Your task to perform on an android device: Open notification settings Image 0: 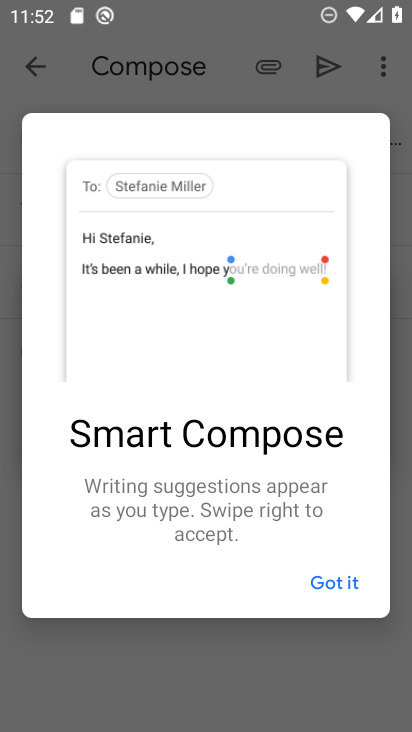
Step 0: press home button
Your task to perform on an android device: Open notification settings Image 1: 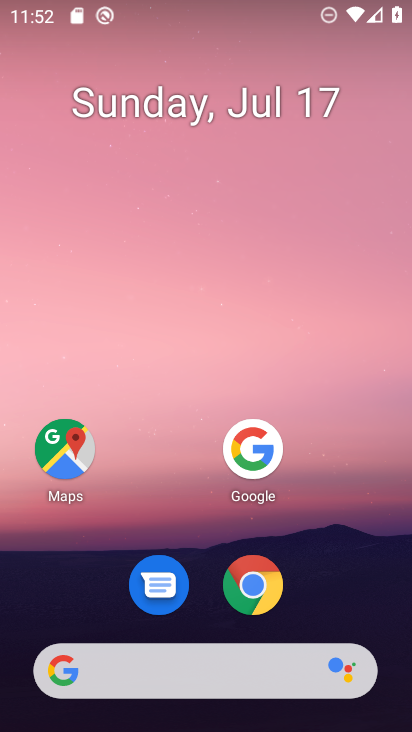
Step 1: drag from (168, 662) to (277, 3)
Your task to perform on an android device: Open notification settings Image 2: 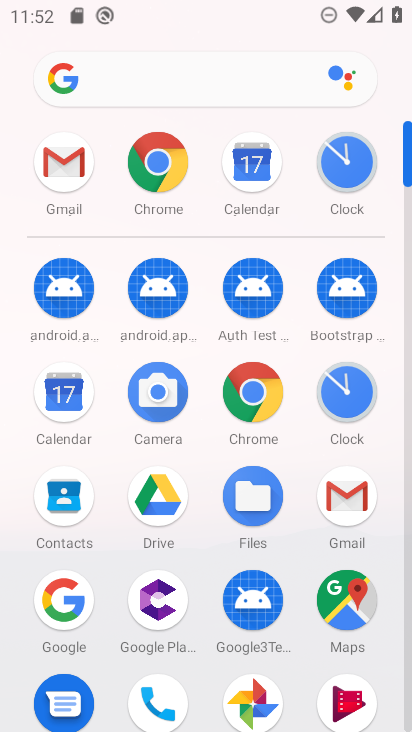
Step 2: drag from (195, 562) to (244, 115)
Your task to perform on an android device: Open notification settings Image 3: 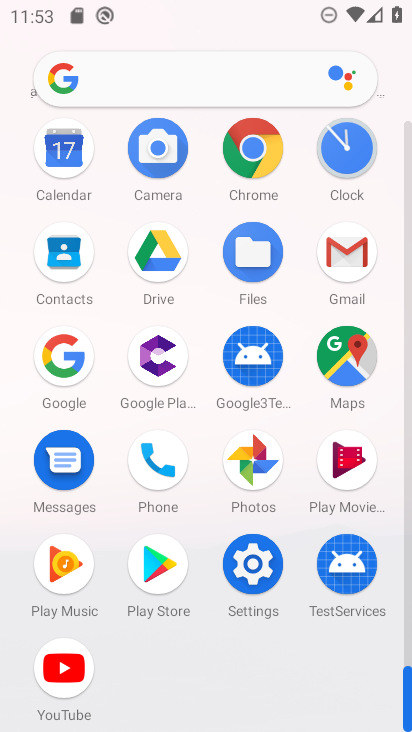
Step 3: click (261, 564)
Your task to perform on an android device: Open notification settings Image 4: 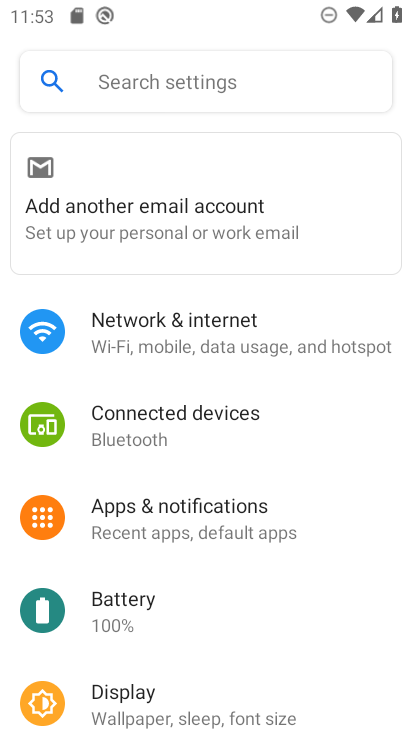
Step 4: click (203, 527)
Your task to perform on an android device: Open notification settings Image 5: 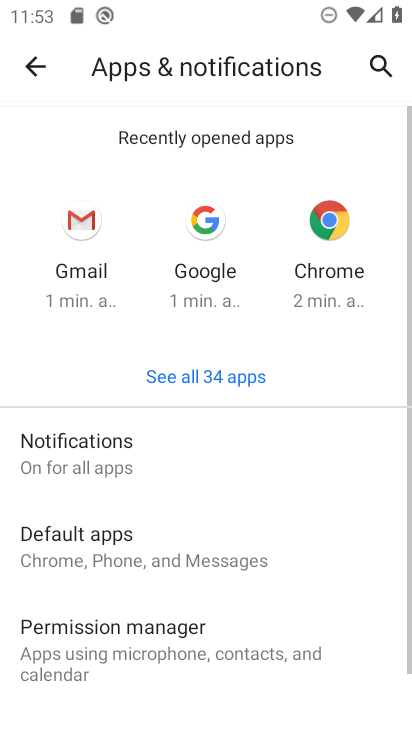
Step 5: click (86, 446)
Your task to perform on an android device: Open notification settings Image 6: 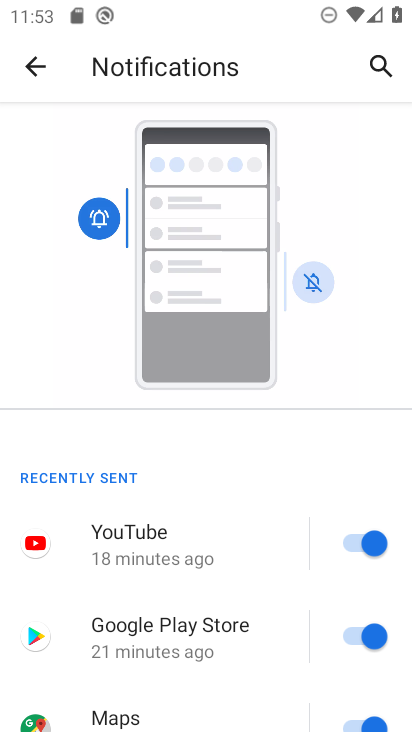
Step 6: task complete